Your task to perform on an android device: Open network settings Image 0: 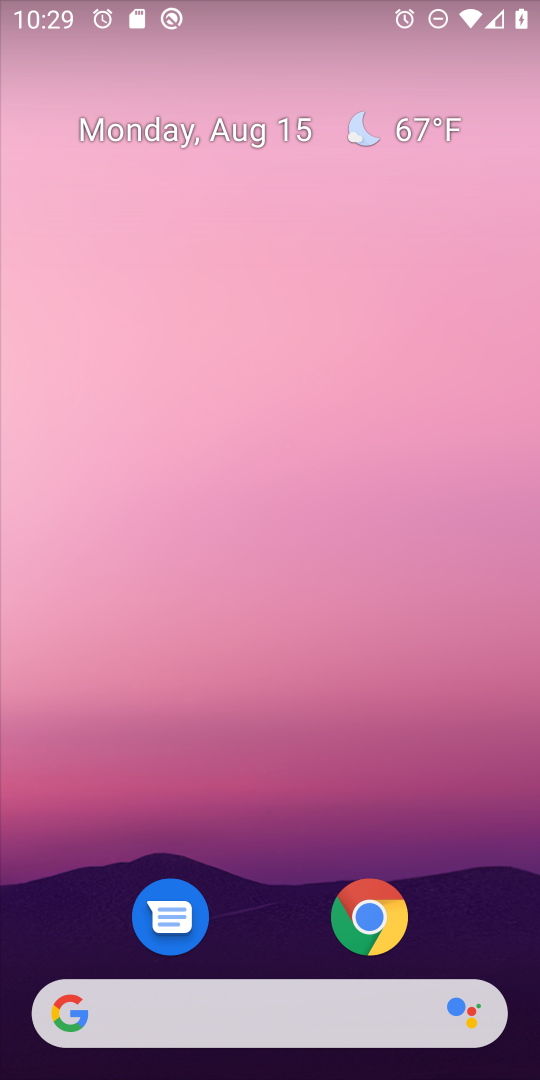
Step 0: drag from (289, 732) to (324, 9)
Your task to perform on an android device: Open network settings Image 1: 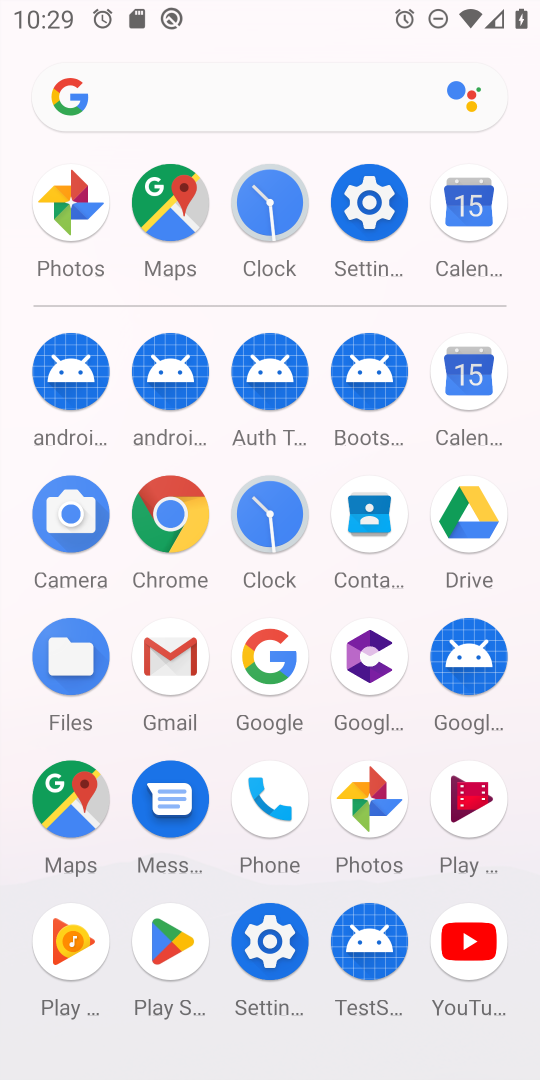
Step 1: click (357, 188)
Your task to perform on an android device: Open network settings Image 2: 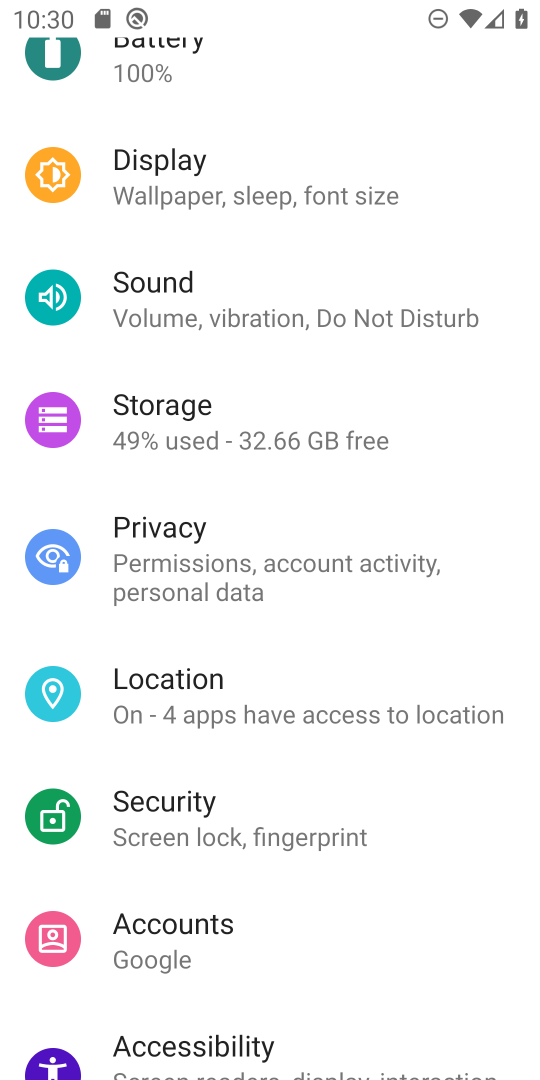
Step 2: drag from (340, 361) to (364, 851)
Your task to perform on an android device: Open network settings Image 3: 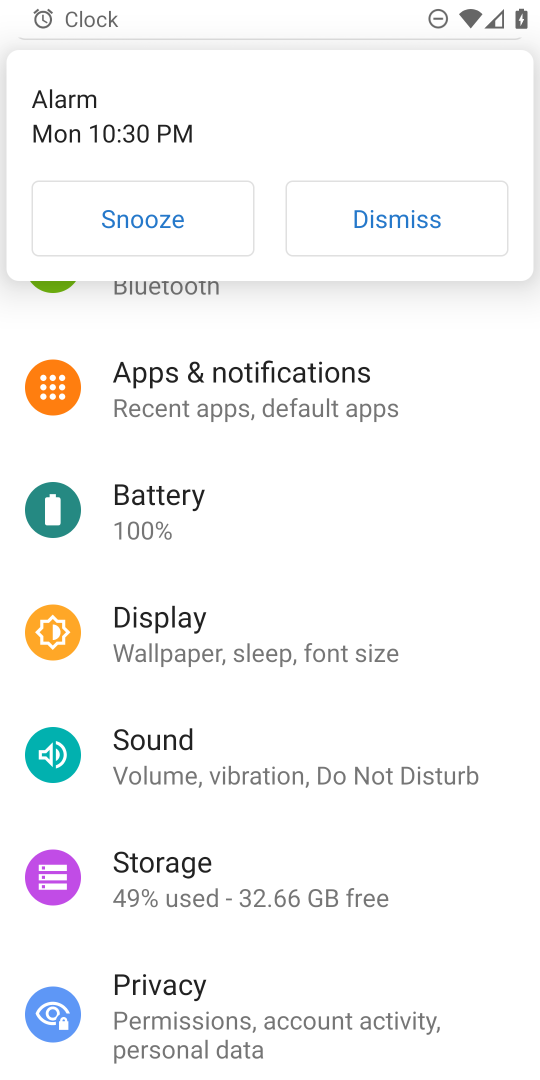
Step 3: drag from (353, 500) to (302, 837)
Your task to perform on an android device: Open network settings Image 4: 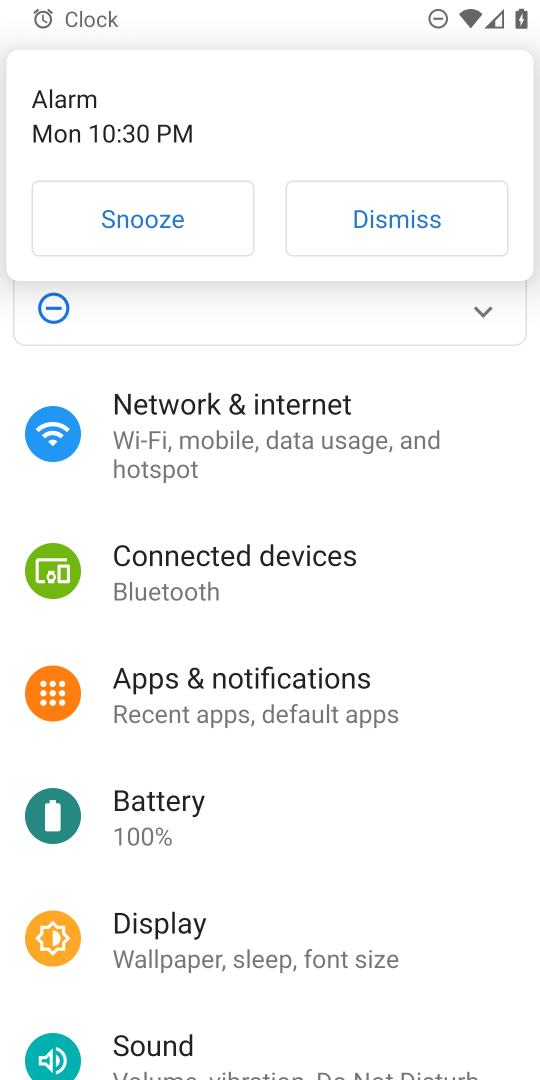
Step 4: click (410, 216)
Your task to perform on an android device: Open network settings Image 5: 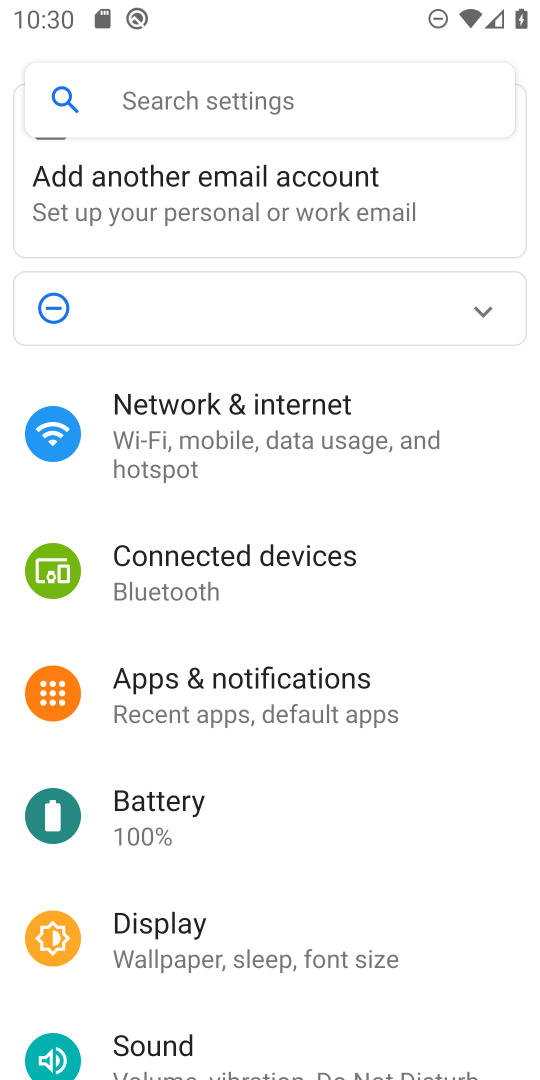
Step 5: click (338, 423)
Your task to perform on an android device: Open network settings Image 6: 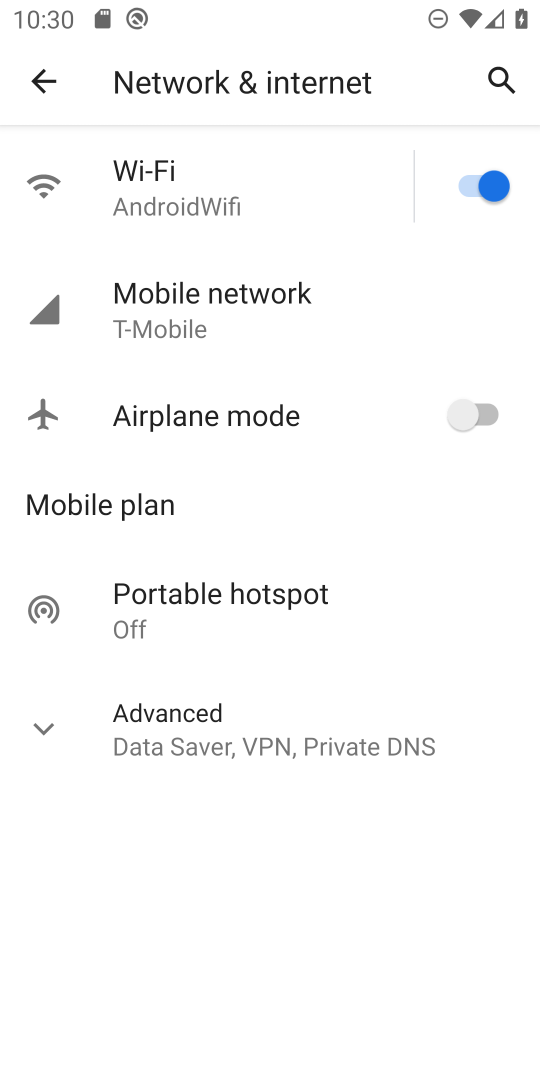
Step 6: task complete